Your task to perform on an android device: Open calendar and show me the second week of next month Image 0: 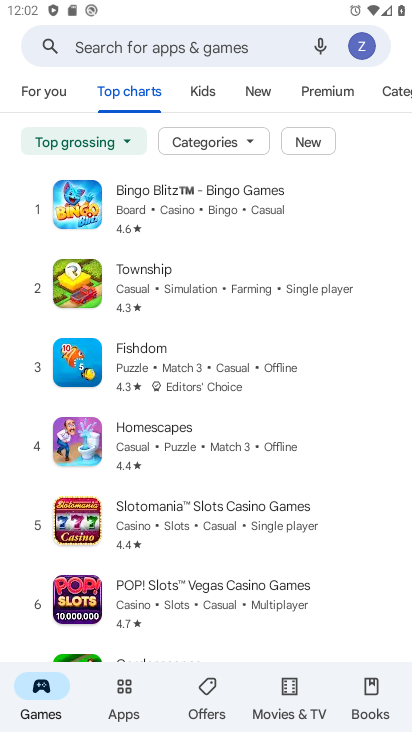
Step 0: press home button
Your task to perform on an android device: Open calendar and show me the second week of next month Image 1: 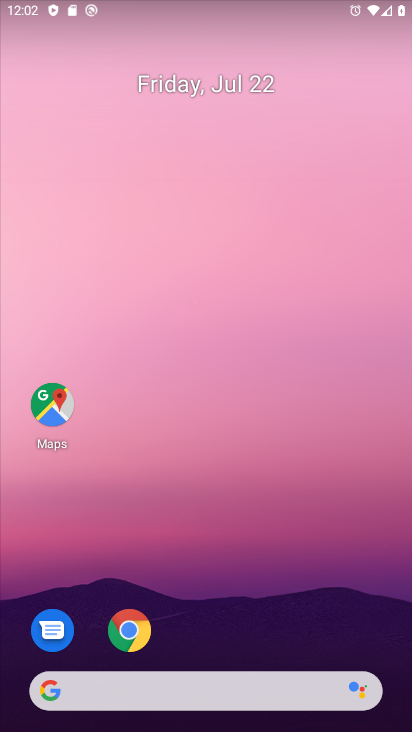
Step 1: drag from (210, 645) to (113, 158)
Your task to perform on an android device: Open calendar and show me the second week of next month Image 2: 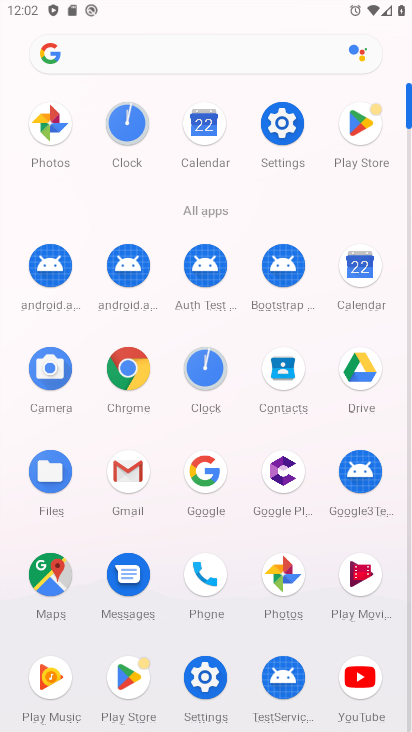
Step 2: click (204, 135)
Your task to perform on an android device: Open calendar and show me the second week of next month Image 3: 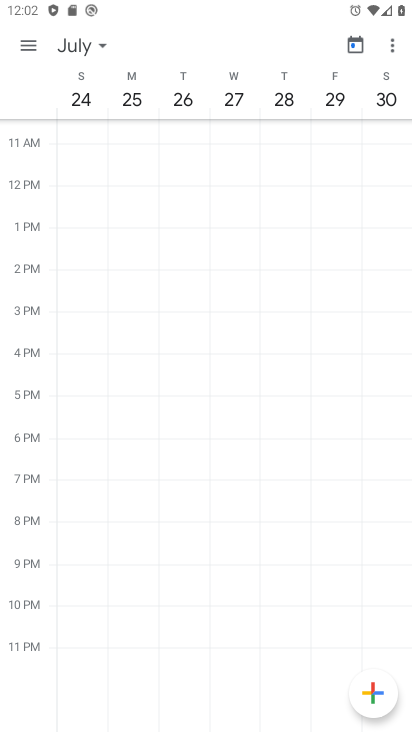
Step 3: click (93, 48)
Your task to perform on an android device: Open calendar and show me the second week of next month Image 4: 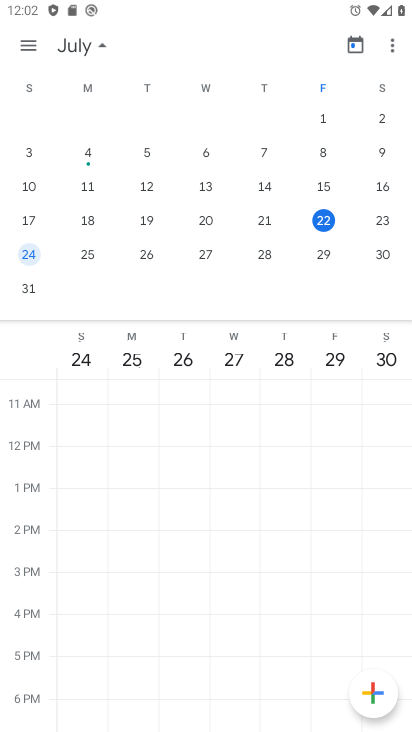
Step 4: drag from (339, 212) to (0, 173)
Your task to perform on an android device: Open calendar and show me the second week of next month Image 5: 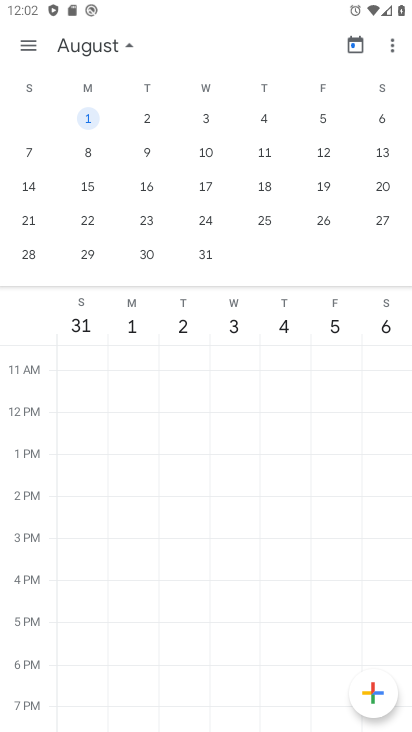
Step 5: click (25, 150)
Your task to perform on an android device: Open calendar and show me the second week of next month Image 6: 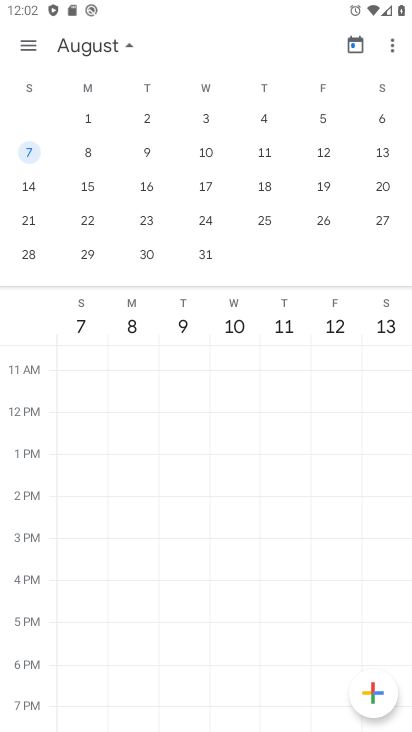
Step 6: click (117, 42)
Your task to perform on an android device: Open calendar and show me the second week of next month Image 7: 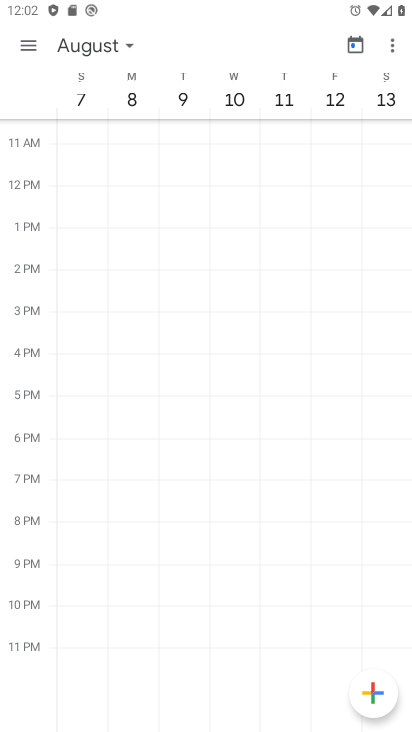
Step 7: task complete